Your task to perform on an android device: choose inbox layout in the gmail app Image 0: 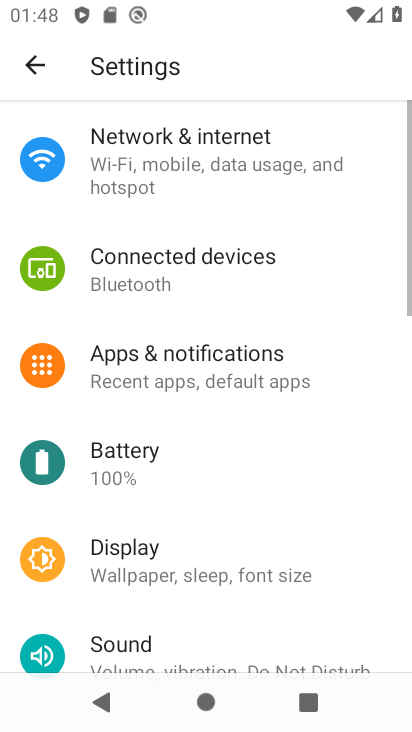
Step 0: press home button
Your task to perform on an android device: choose inbox layout in the gmail app Image 1: 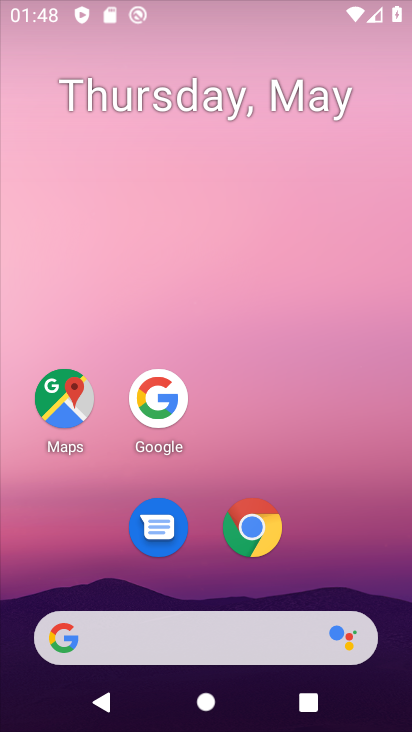
Step 1: drag from (231, 560) to (216, 106)
Your task to perform on an android device: choose inbox layout in the gmail app Image 2: 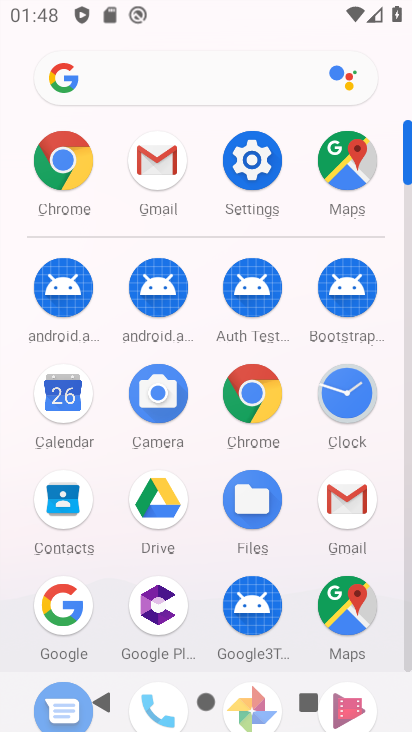
Step 2: click (333, 494)
Your task to perform on an android device: choose inbox layout in the gmail app Image 3: 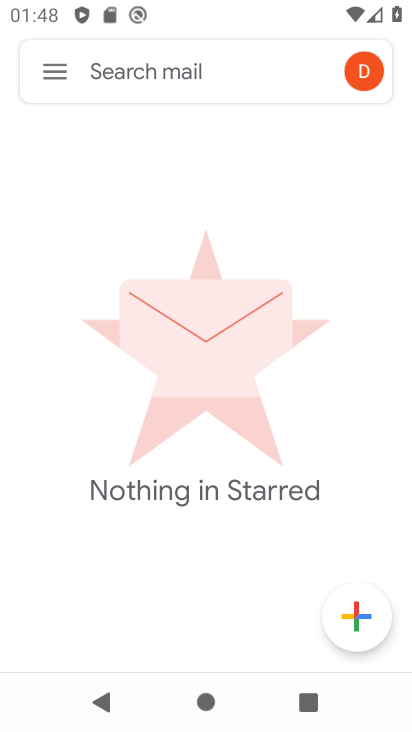
Step 3: click (60, 87)
Your task to perform on an android device: choose inbox layout in the gmail app Image 4: 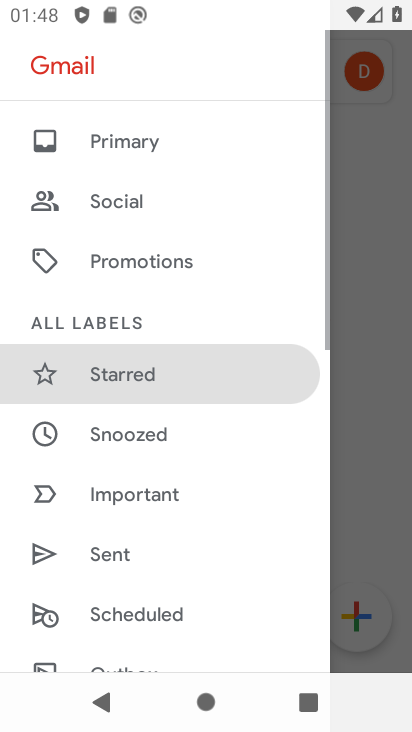
Step 4: click (159, 133)
Your task to perform on an android device: choose inbox layout in the gmail app Image 5: 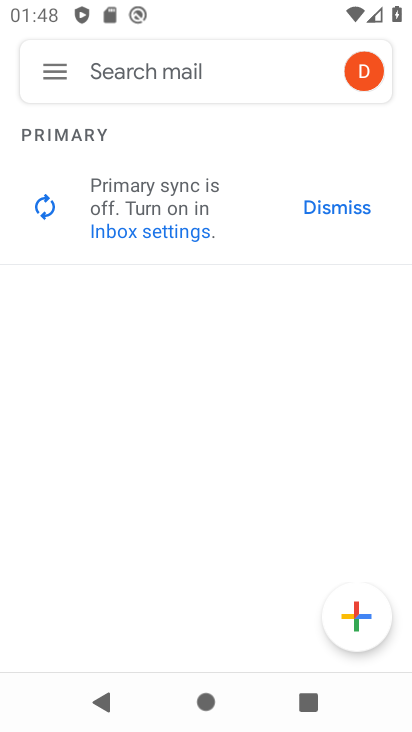
Step 5: click (61, 72)
Your task to perform on an android device: choose inbox layout in the gmail app Image 6: 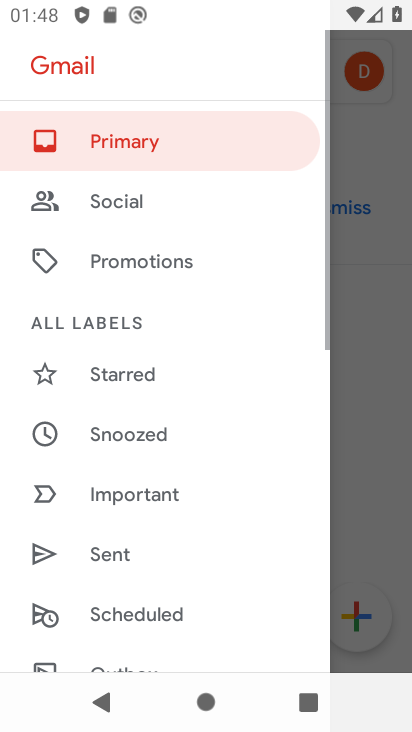
Step 6: drag from (164, 181) to (247, 623)
Your task to perform on an android device: choose inbox layout in the gmail app Image 7: 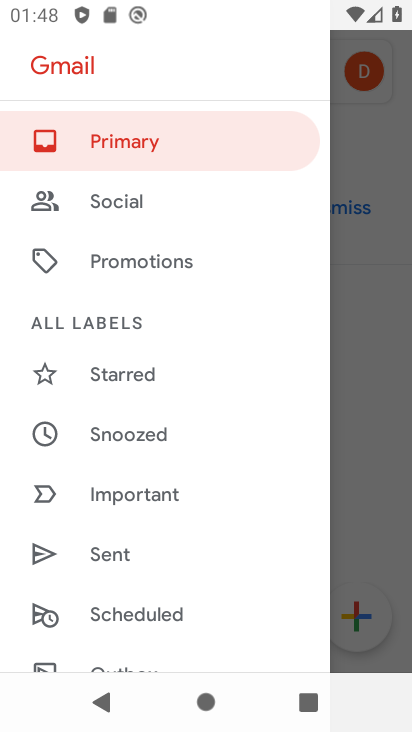
Step 7: click (147, 138)
Your task to perform on an android device: choose inbox layout in the gmail app Image 8: 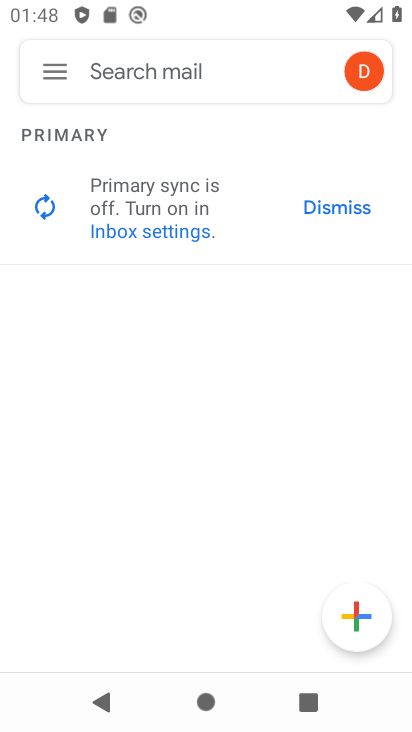
Step 8: task complete